Your task to perform on an android device: open a bookmark in the chrome app Image 0: 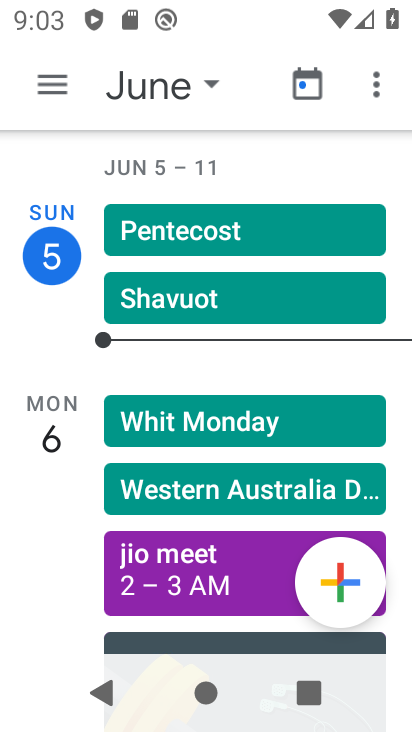
Step 0: press home button
Your task to perform on an android device: open a bookmark in the chrome app Image 1: 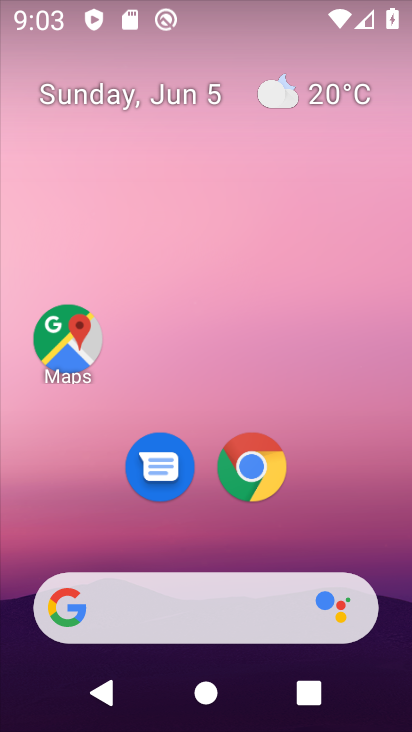
Step 1: click (246, 459)
Your task to perform on an android device: open a bookmark in the chrome app Image 2: 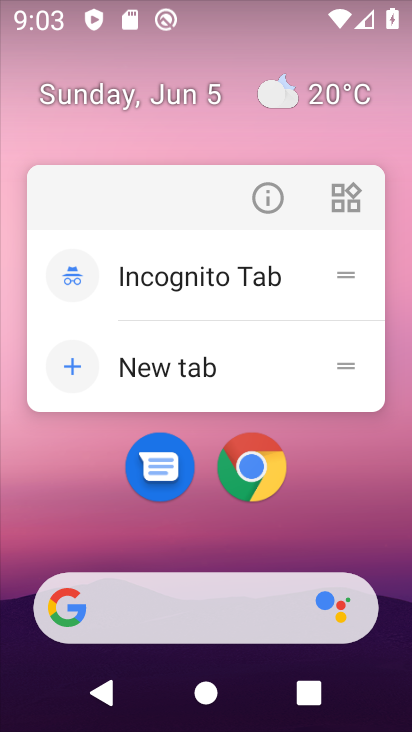
Step 2: click (247, 459)
Your task to perform on an android device: open a bookmark in the chrome app Image 3: 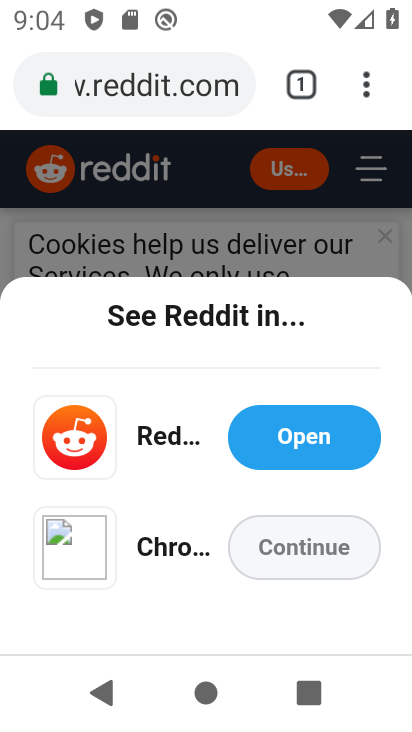
Step 3: click (357, 81)
Your task to perform on an android device: open a bookmark in the chrome app Image 4: 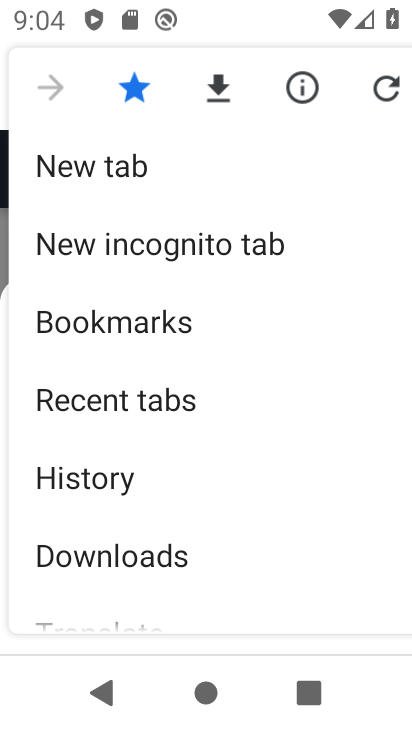
Step 4: click (131, 316)
Your task to perform on an android device: open a bookmark in the chrome app Image 5: 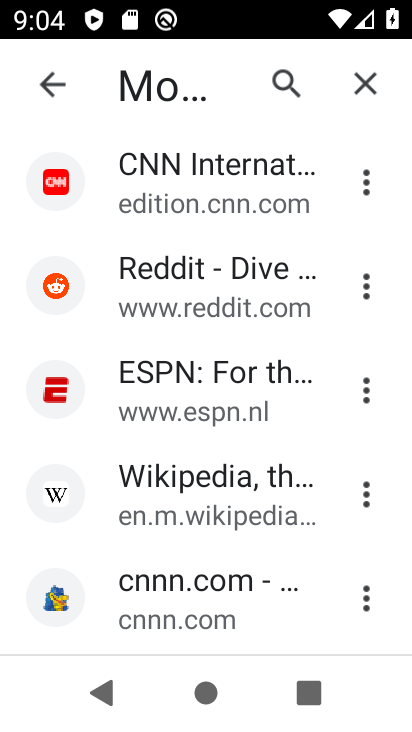
Step 5: click (150, 385)
Your task to perform on an android device: open a bookmark in the chrome app Image 6: 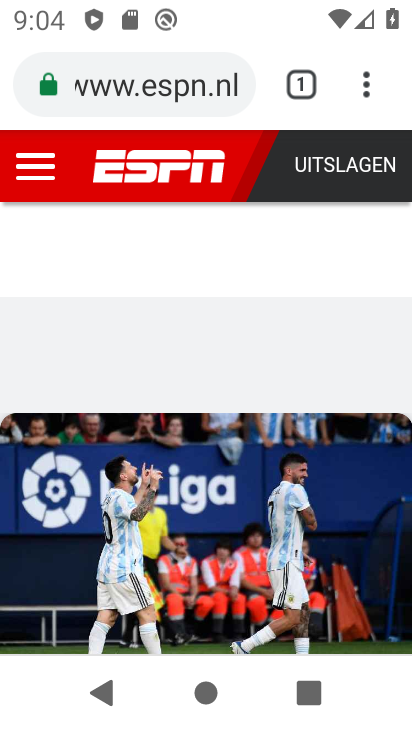
Step 6: task complete